Your task to perform on an android device: turn off smart reply in the gmail app Image 0: 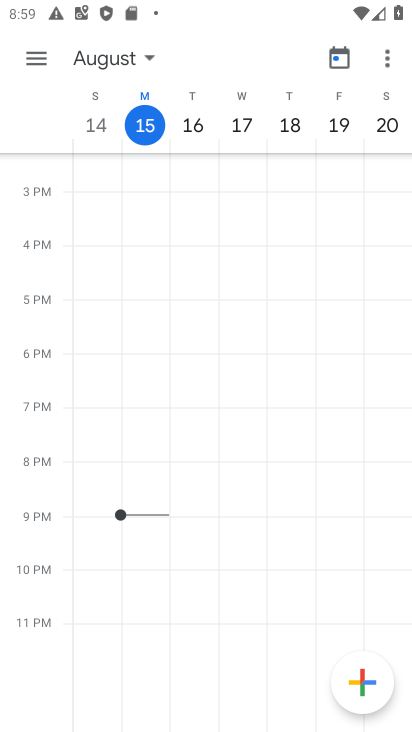
Step 0: press home button
Your task to perform on an android device: turn off smart reply in the gmail app Image 1: 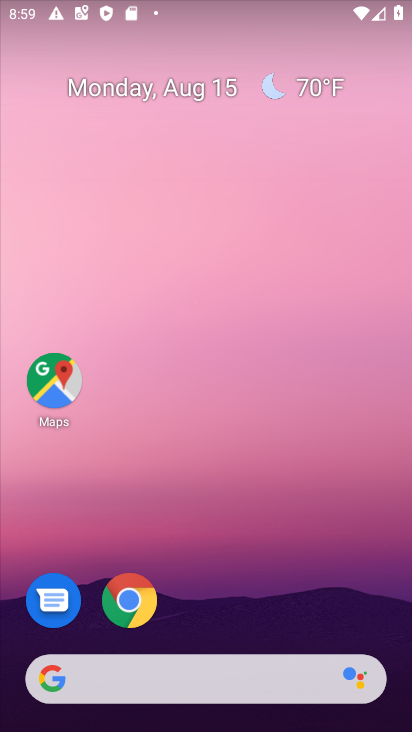
Step 1: drag from (213, 596) to (162, 79)
Your task to perform on an android device: turn off smart reply in the gmail app Image 2: 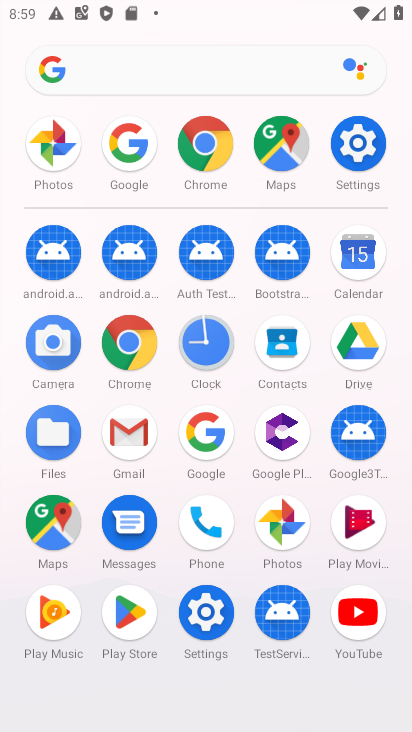
Step 2: click (127, 435)
Your task to perform on an android device: turn off smart reply in the gmail app Image 3: 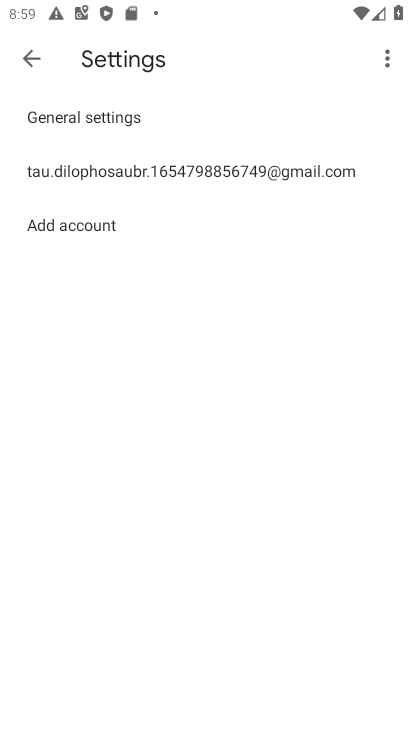
Step 3: click (30, 58)
Your task to perform on an android device: turn off smart reply in the gmail app Image 4: 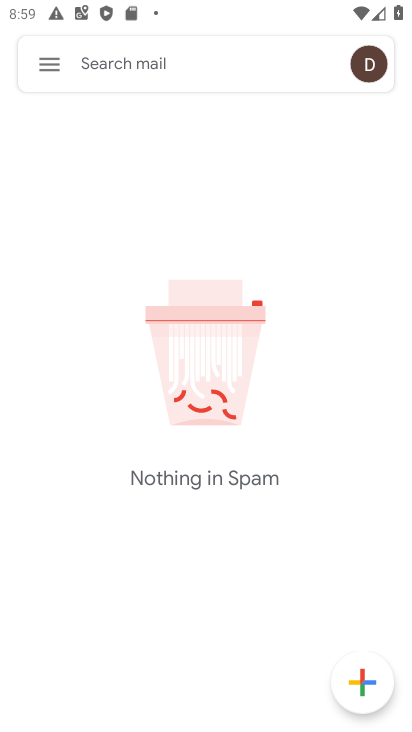
Step 4: click (42, 60)
Your task to perform on an android device: turn off smart reply in the gmail app Image 5: 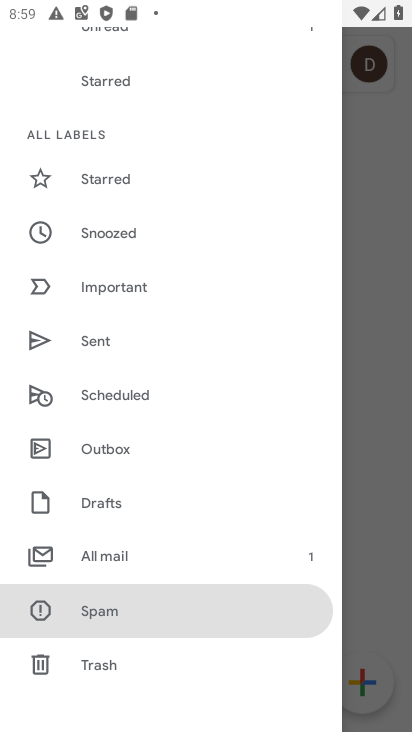
Step 5: drag from (141, 667) to (146, 280)
Your task to perform on an android device: turn off smart reply in the gmail app Image 6: 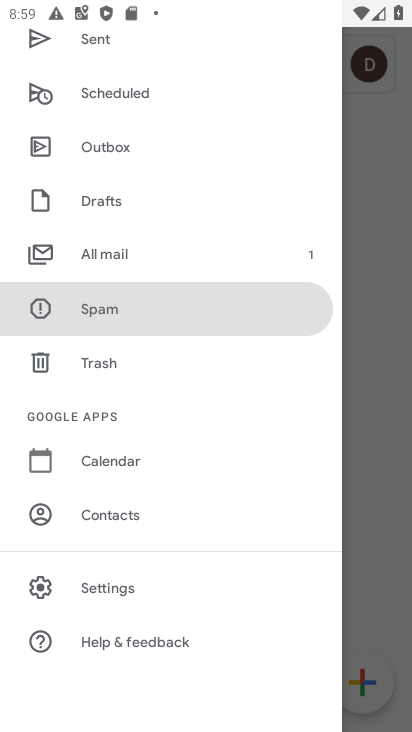
Step 6: click (126, 588)
Your task to perform on an android device: turn off smart reply in the gmail app Image 7: 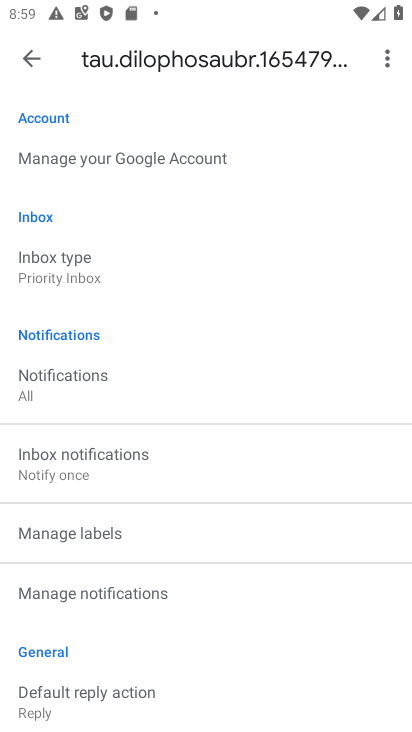
Step 7: drag from (118, 653) to (116, 331)
Your task to perform on an android device: turn off smart reply in the gmail app Image 8: 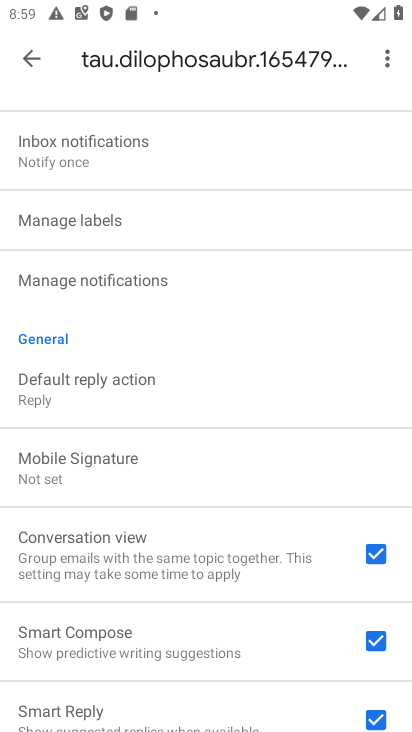
Step 8: drag from (114, 686) to (145, 414)
Your task to perform on an android device: turn off smart reply in the gmail app Image 9: 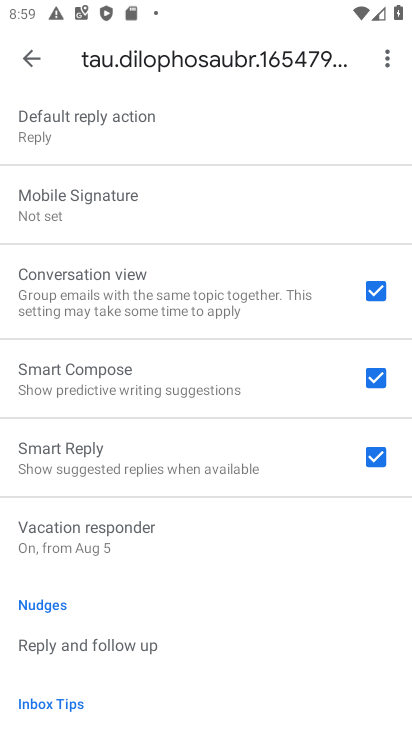
Step 9: click (375, 461)
Your task to perform on an android device: turn off smart reply in the gmail app Image 10: 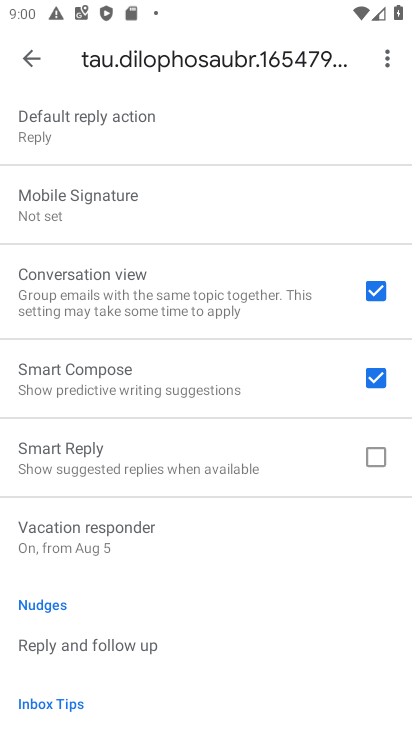
Step 10: task complete